Your task to perform on an android device: Go to ESPN.com Image 0: 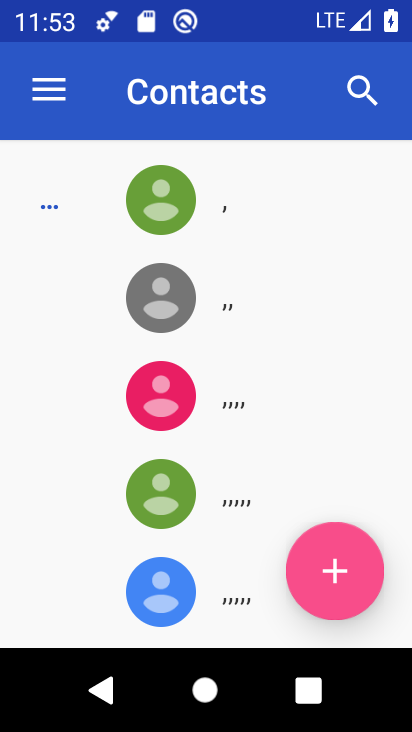
Step 0: press back button
Your task to perform on an android device: Go to ESPN.com Image 1: 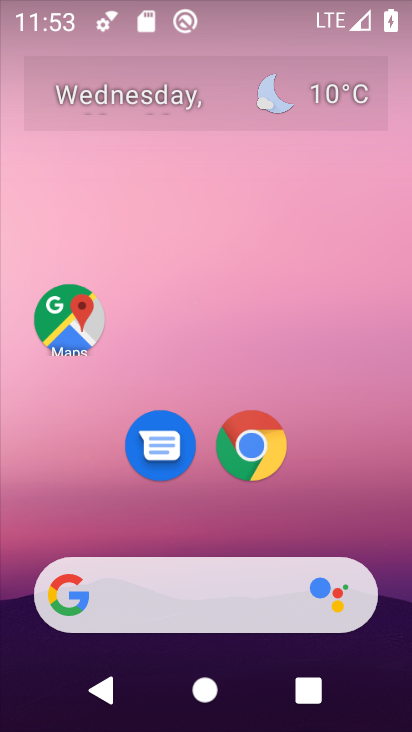
Step 1: click (244, 437)
Your task to perform on an android device: Go to ESPN.com Image 2: 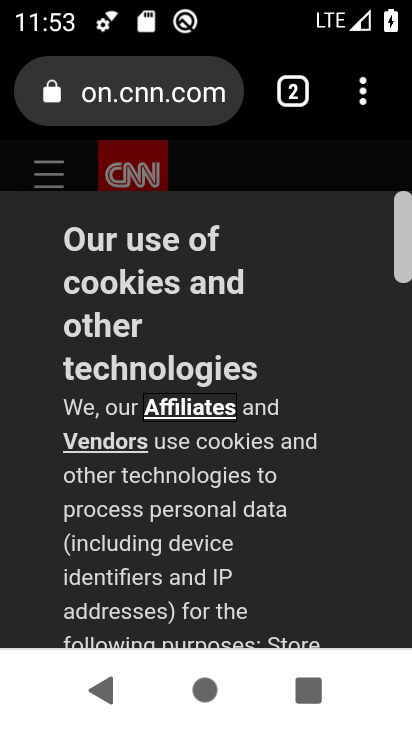
Step 2: click (305, 89)
Your task to perform on an android device: Go to ESPN.com Image 3: 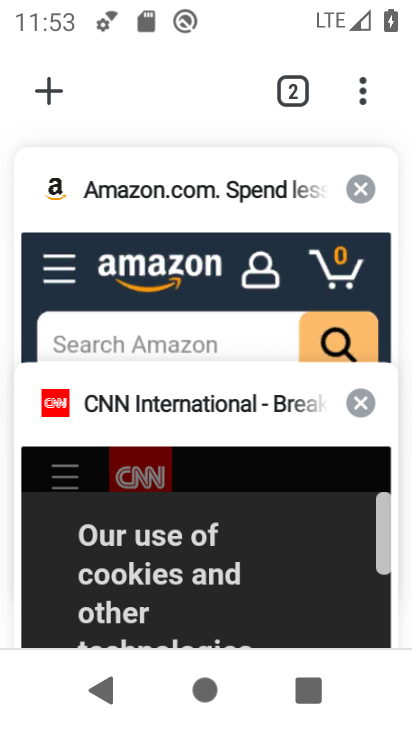
Step 3: click (62, 88)
Your task to perform on an android device: Go to ESPN.com Image 4: 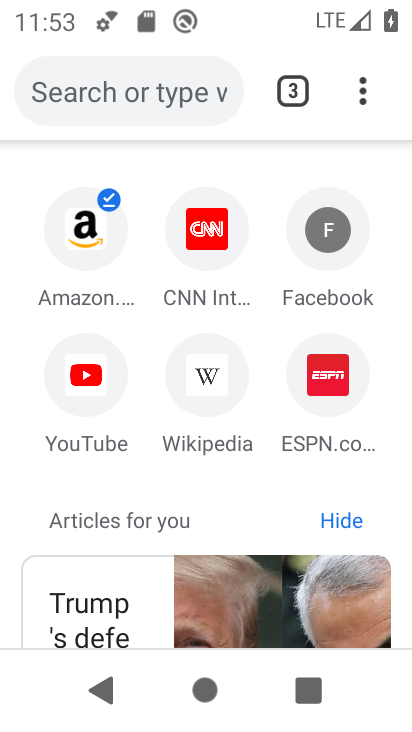
Step 4: click (322, 367)
Your task to perform on an android device: Go to ESPN.com Image 5: 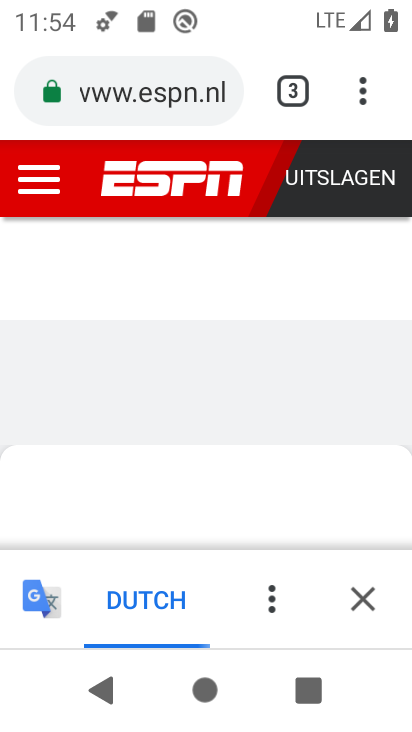
Step 5: task complete